Your task to perform on an android device: Search for razer blade on costco.com, select the first entry, and add it to the cart. Image 0: 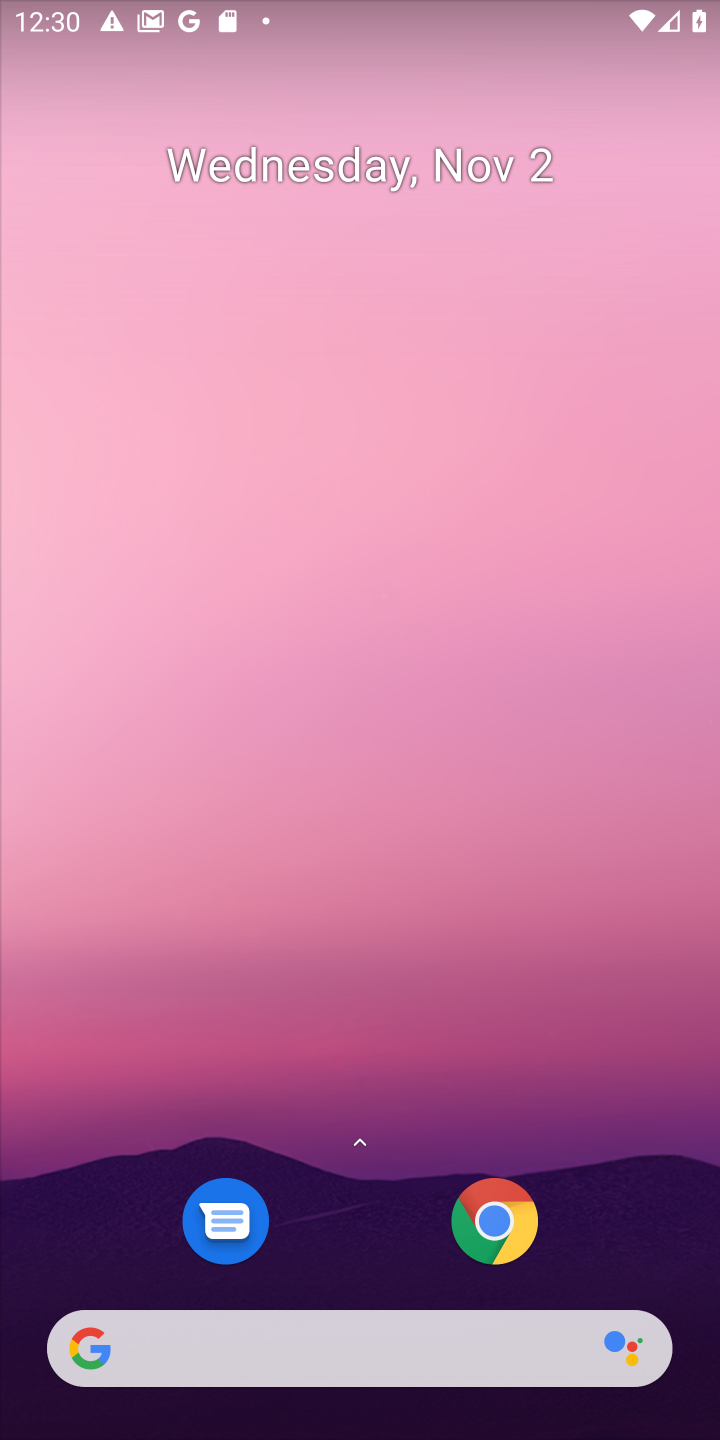
Step 0: click (432, 1325)
Your task to perform on an android device: Search for razer blade on costco.com, select the first entry, and add it to the cart. Image 1: 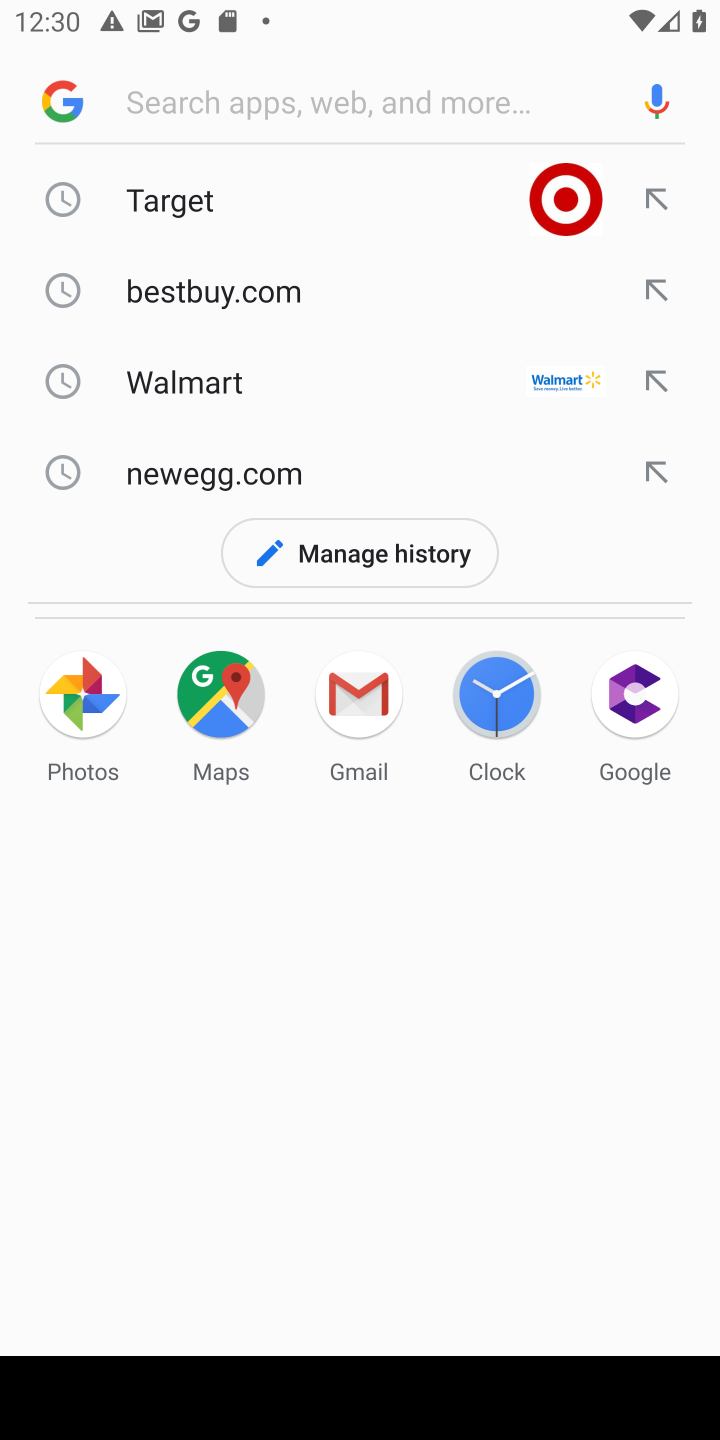
Step 1: type "costco"
Your task to perform on an android device: Search for razer blade on costco.com, select the first entry, and add it to the cart. Image 2: 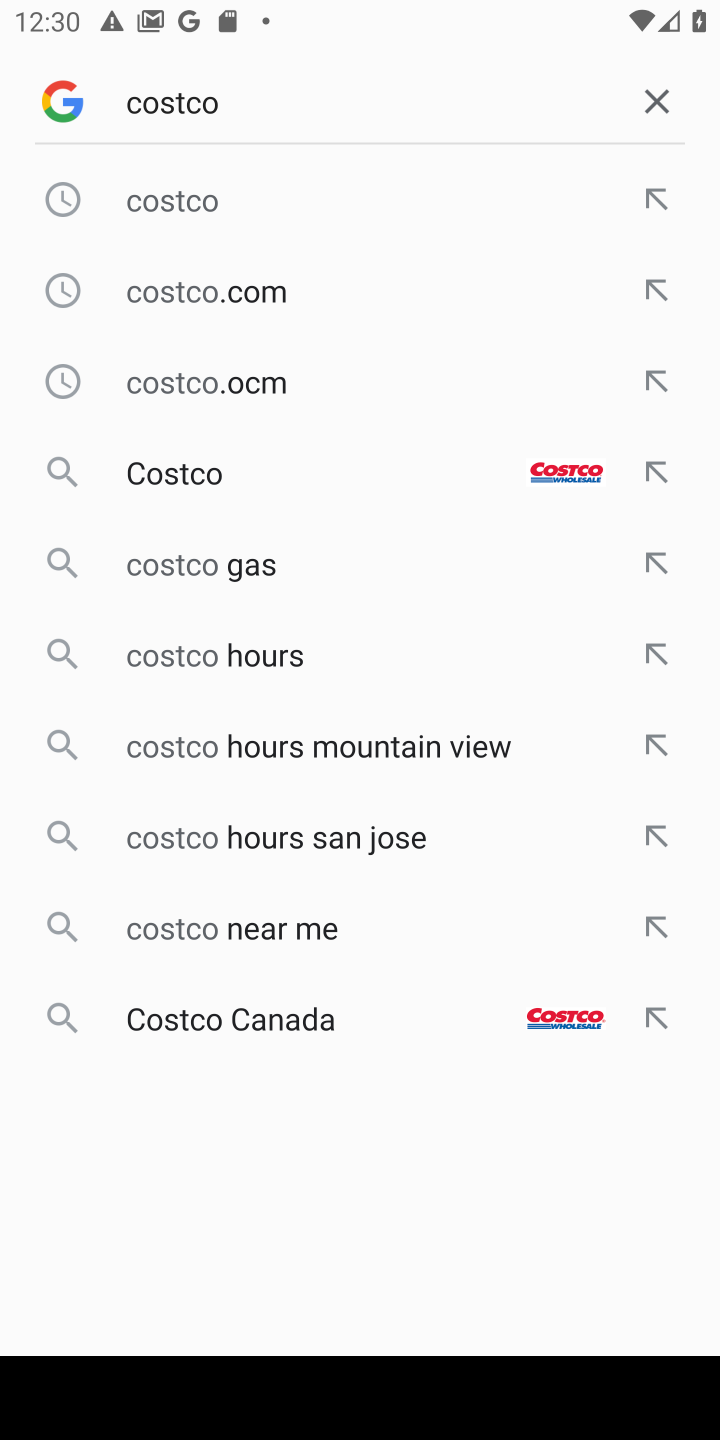
Step 2: click (184, 211)
Your task to perform on an android device: Search for razer blade on costco.com, select the first entry, and add it to the cart. Image 3: 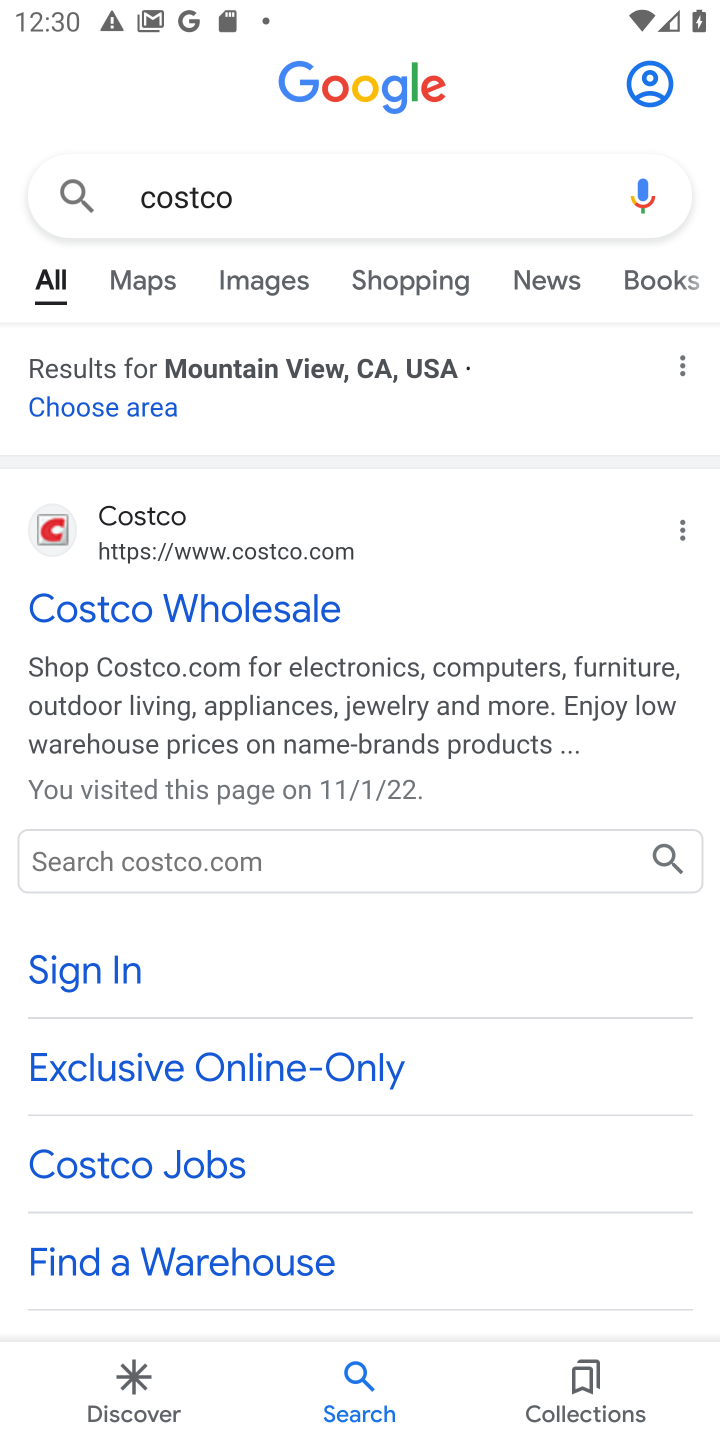
Step 3: click (254, 630)
Your task to perform on an android device: Search for razer blade on costco.com, select the first entry, and add it to the cart. Image 4: 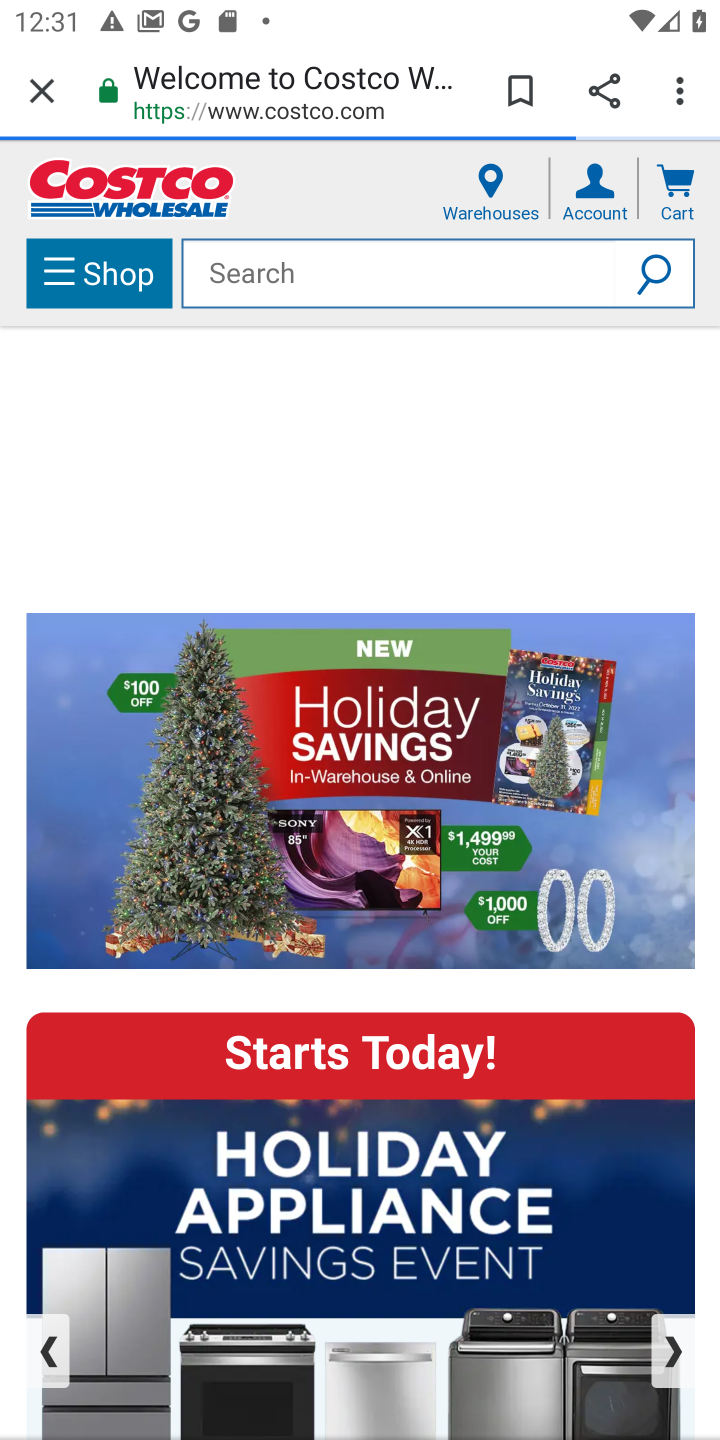
Step 4: click (397, 267)
Your task to perform on an android device: Search for razer blade on costco.com, select the first entry, and add it to the cart. Image 5: 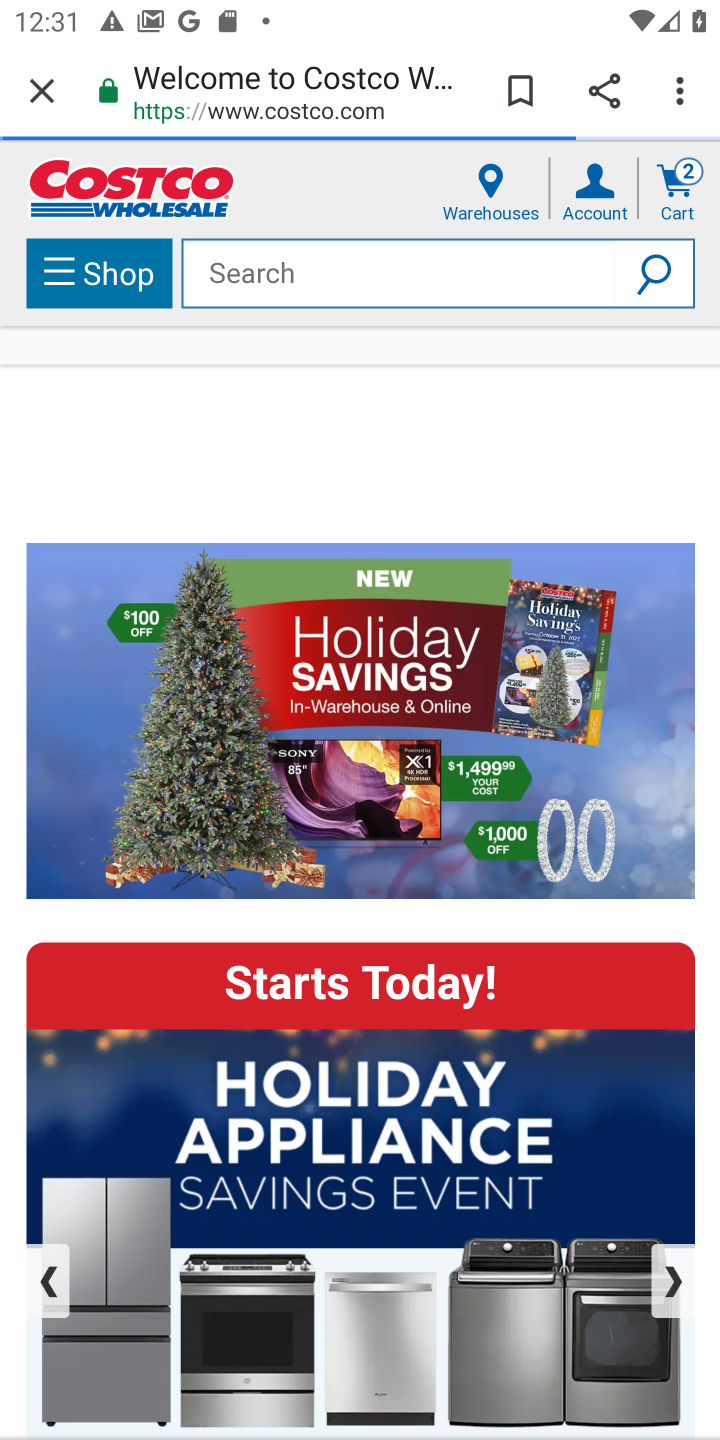
Step 5: type "razer blade"
Your task to perform on an android device: Search for razer blade on costco.com, select the first entry, and add it to the cart. Image 6: 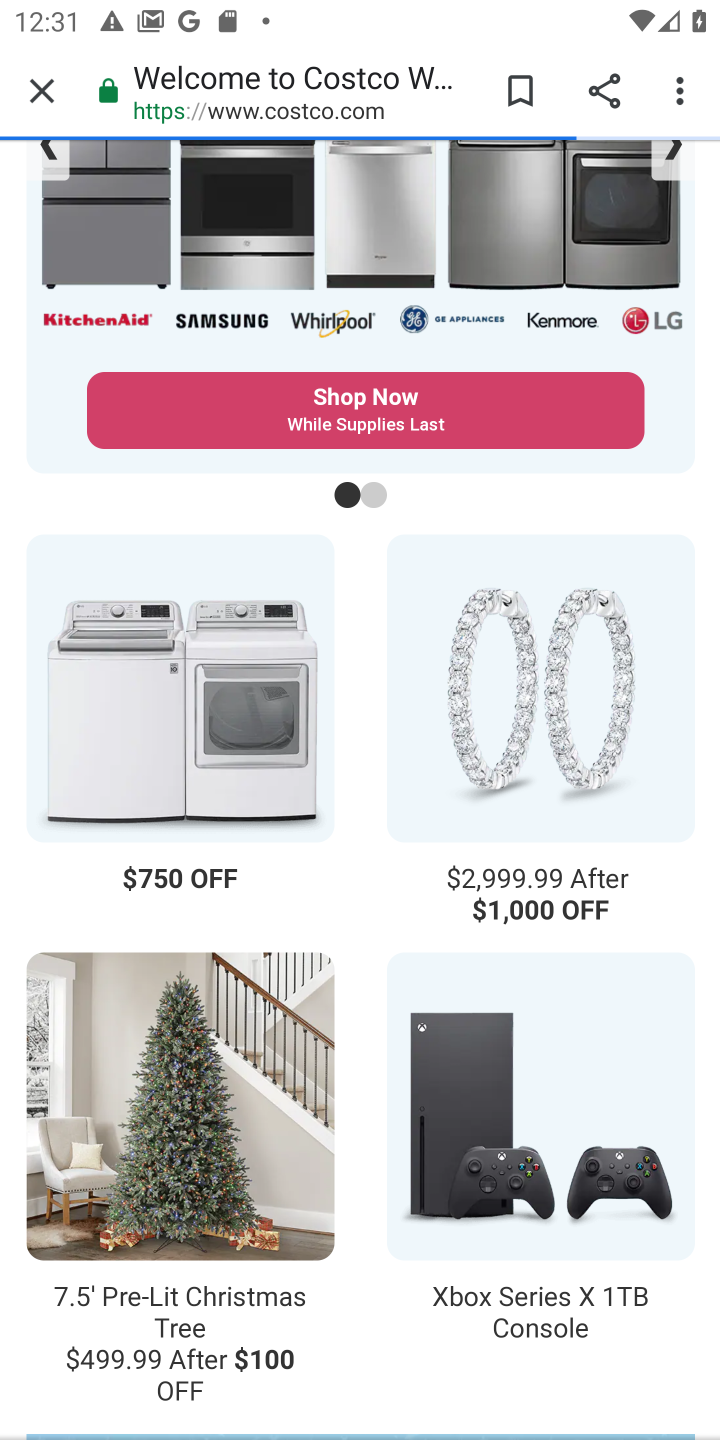
Step 6: click (538, 453)
Your task to perform on an android device: Search for razer blade on costco.com, select the first entry, and add it to the cart. Image 7: 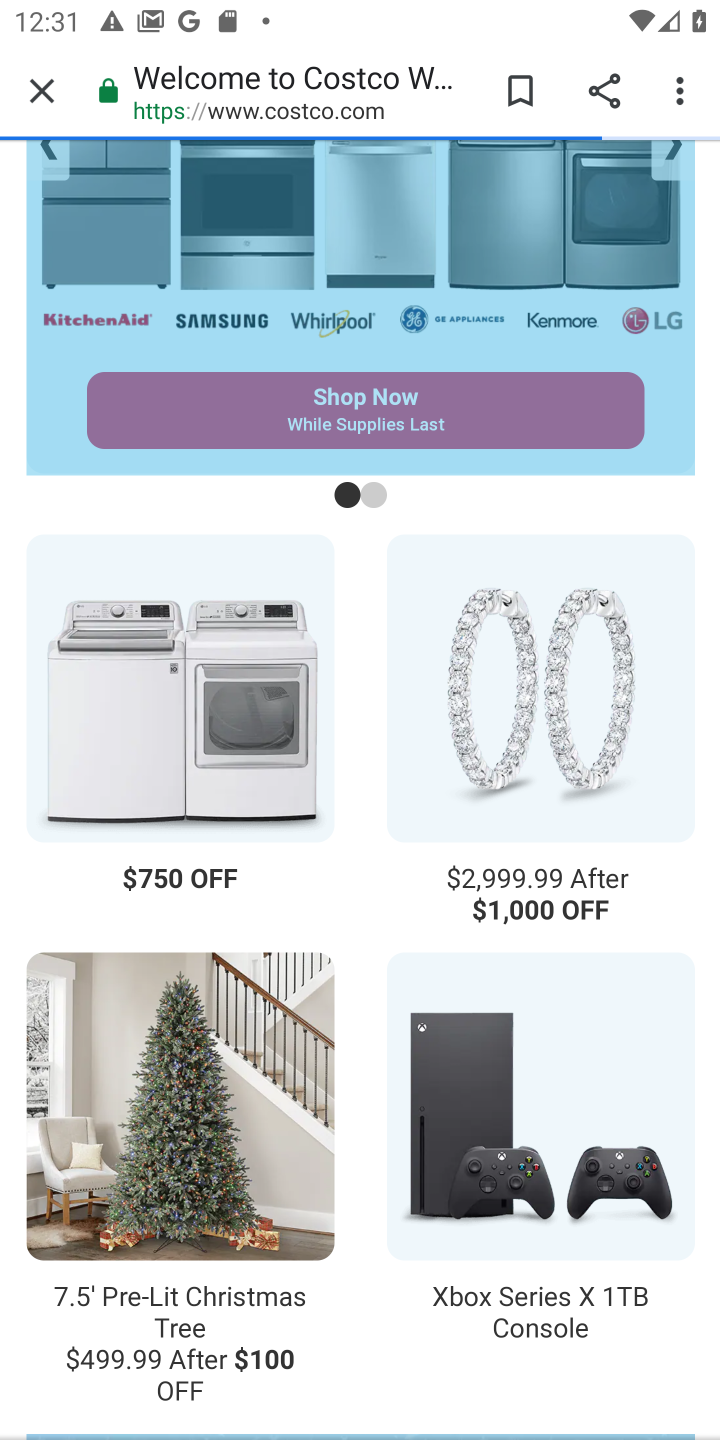
Step 7: task complete